Your task to perform on an android device: Open my contact list Image 0: 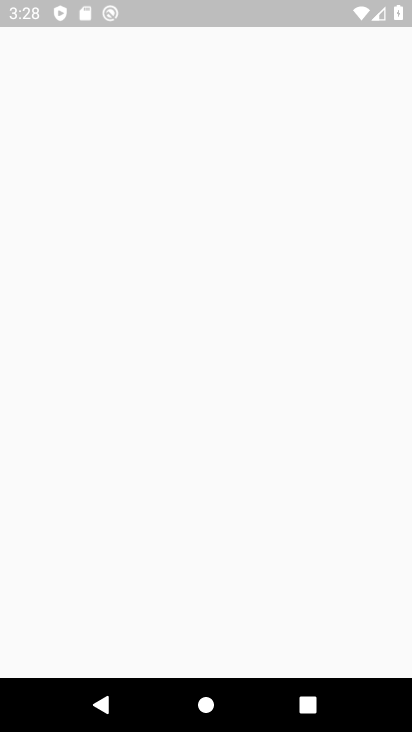
Step 0: press back button
Your task to perform on an android device: Open my contact list Image 1: 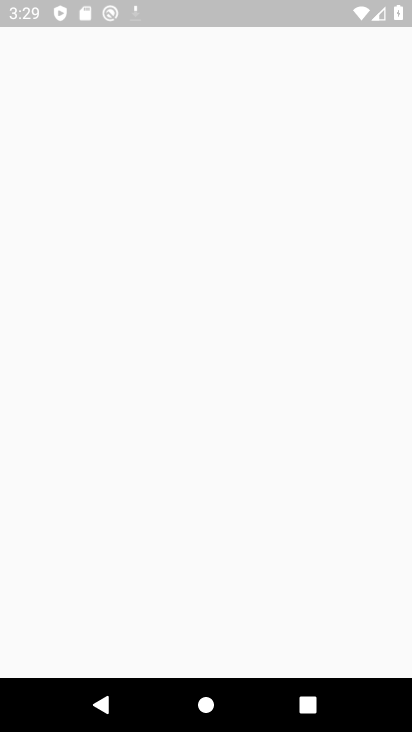
Step 1: press back button
Your task to perform on an android device: Open my contact list Image 2: 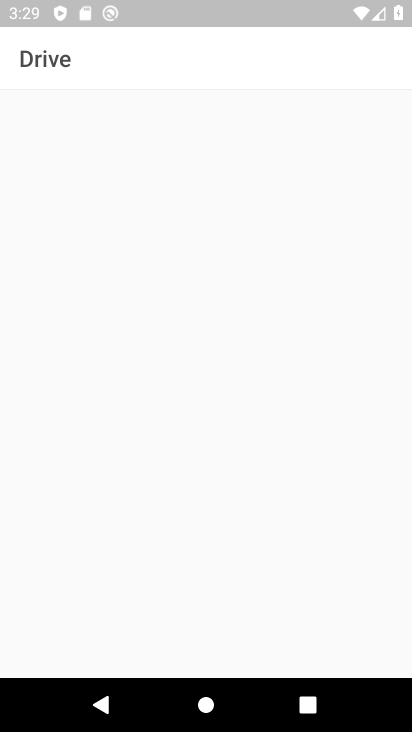
Step 2: press back button
Your task to perform on an android device: Open my contact list Image 3: 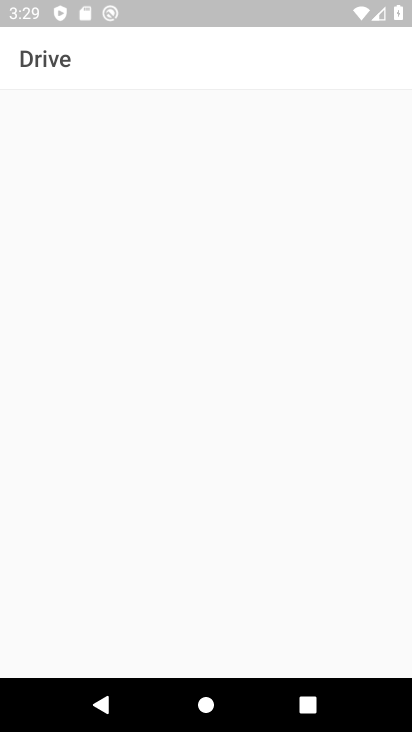
Step 3: press home button
Your task to perform on an android device: Open my contact list Image 4: 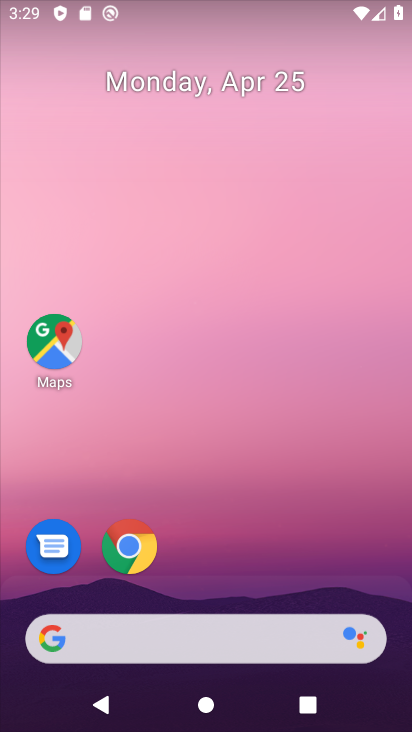
Step 4: drag from (218, 421) to (278, 30)
Your task to perform on an android device: Open my contact list Image 5: 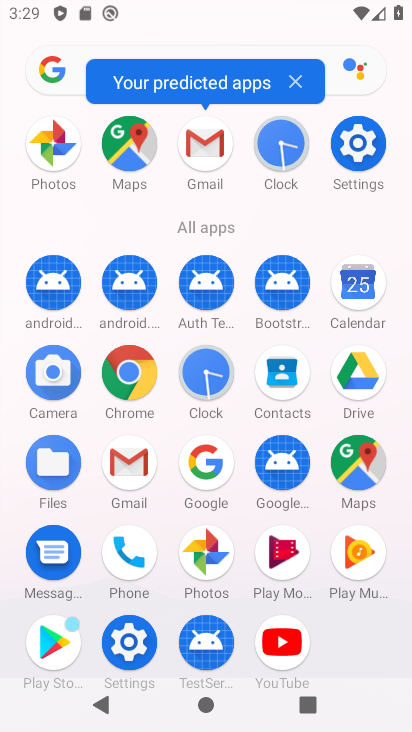
Step 5: click (284, 369)
Your task to perform on an android device: Open my contact list Image 6: 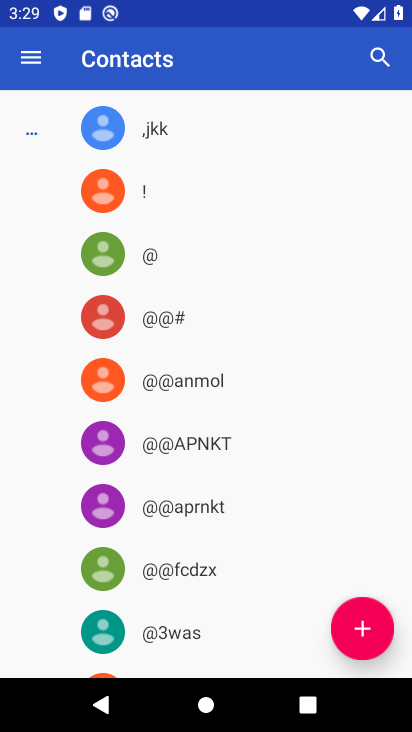
Step 6: task complete